Your task to perform on an android device: Go to Yahoo.com Image 0: 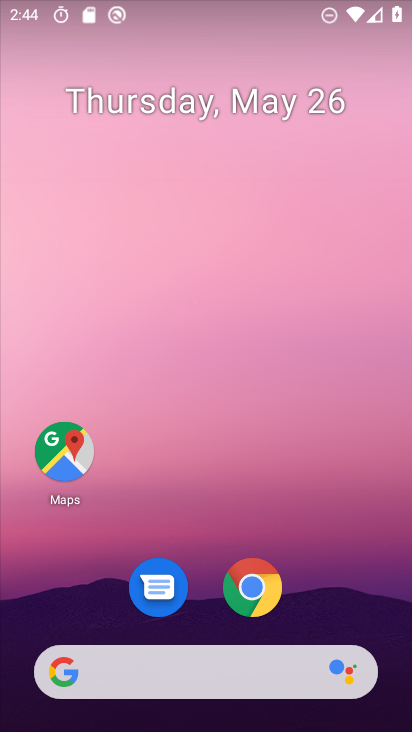
Step 0: click (259, 588)
Your task to perform on an android device: Go to Yahoo.com Image 1: 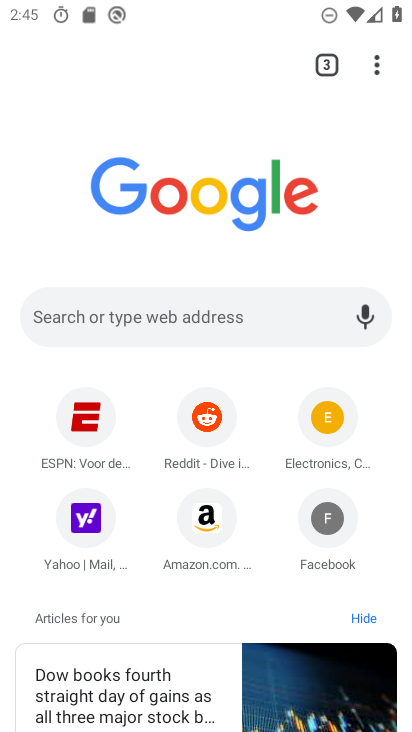
Step 1: click (208, 315)
Your task to perform on an android device: Go to Yahoo.com Image 2: 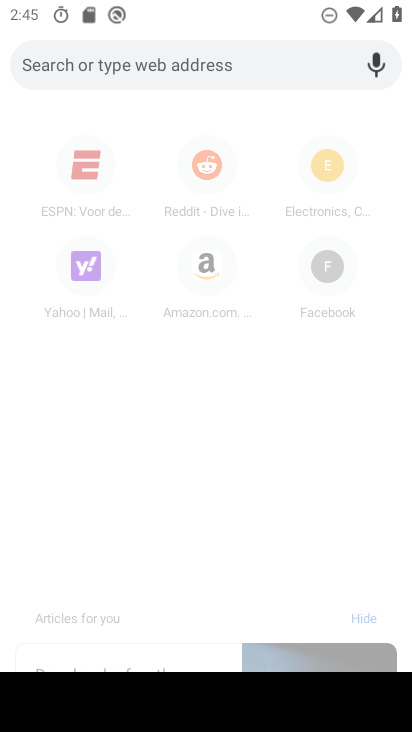
Step 2: type "yahoo.com"
Your task to perform on an android device: Go to Yahoo.com Image 3: 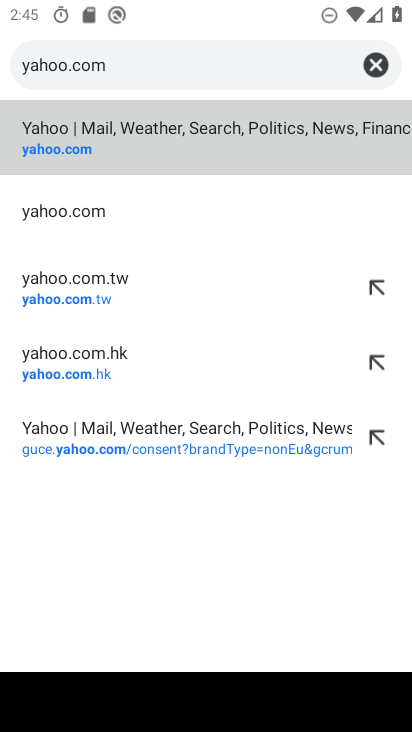
Step 3: click (38, 142)
Your task to perform on an android device: Go to Yahoo.com Image 4: 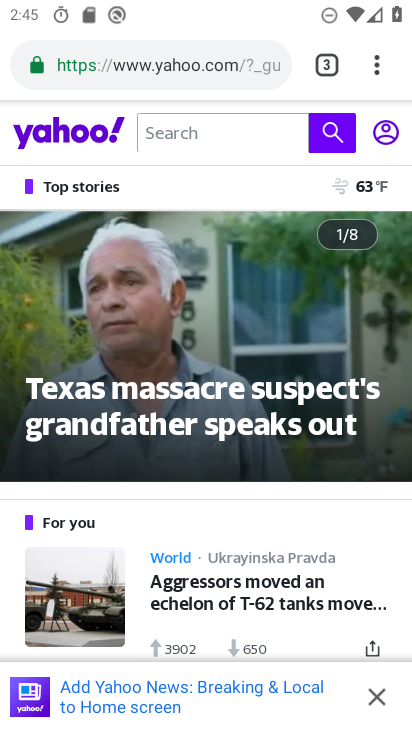
Step 4: task complete